Your task to perform on an android device: change the clock style Image 0: 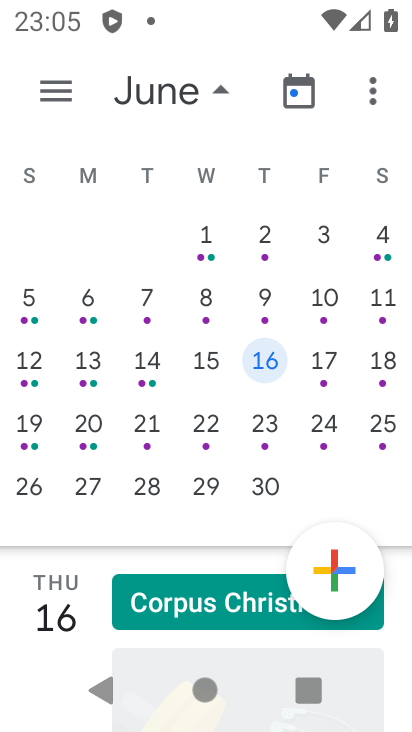
Step 0: drag from (112, 494) to (179, 233)
Your task to perform on an android device: change the clock style Image 1: 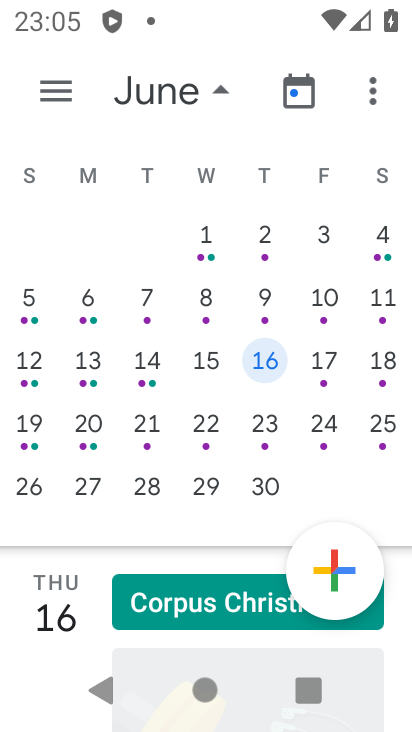
Step 1: press home button
Your task to perform on an android device: change the clock style Image 2: 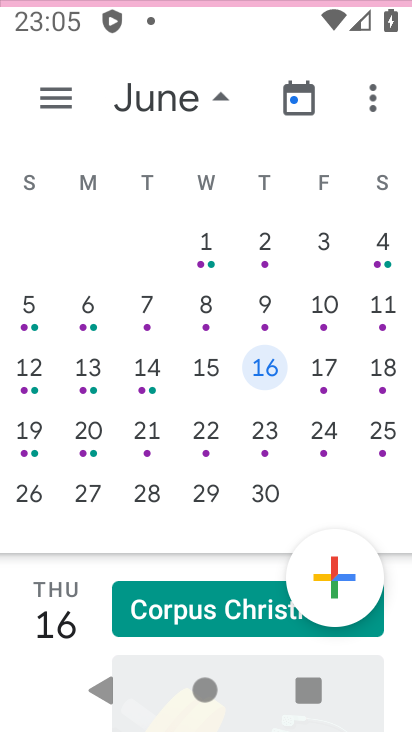
Step 2: drag from (178, 515) to (246, 97)
Your task to perform on an android device: change the clock style Image 3: 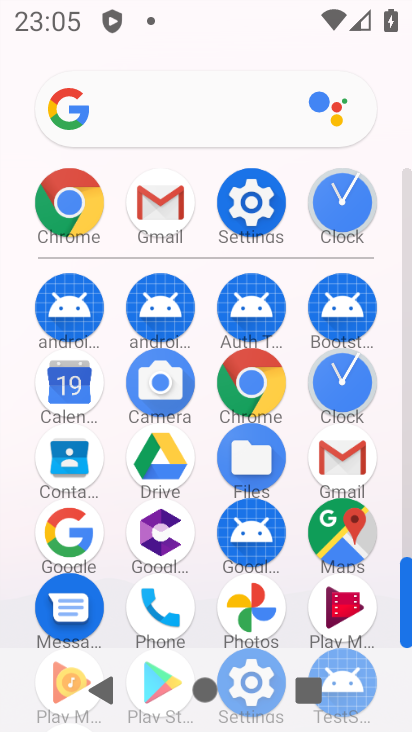
Step 3: click (347, 400)
Your task to perform on an android device: change the clock style Image 4: 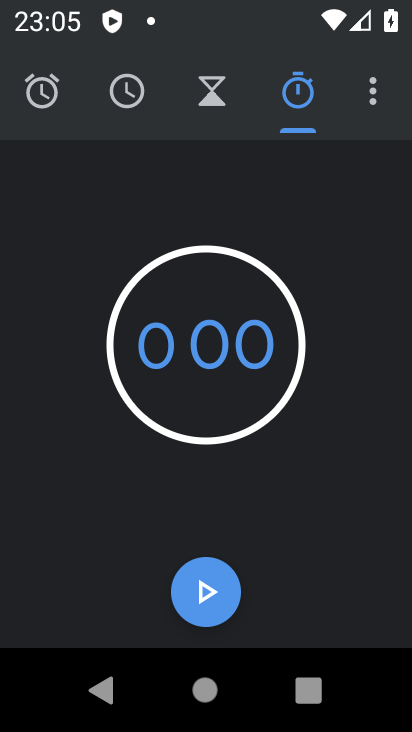
Step 4: click (388, 94)
Your task to perform on an android device: change the clock style Image 5: 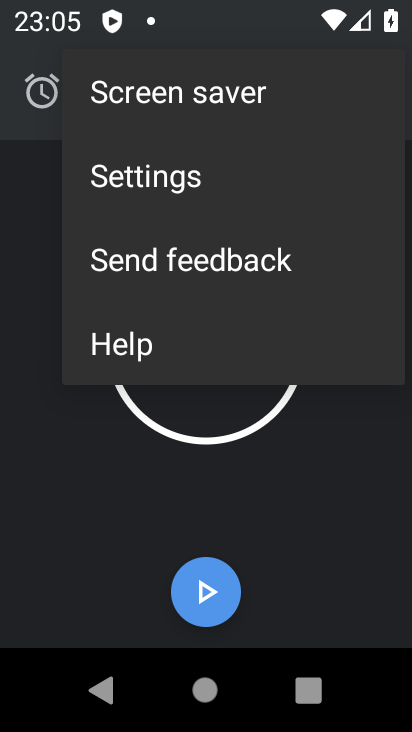
Step 5: click (147, 183)
Your task to perform on an android device: change the clock style Image 6: 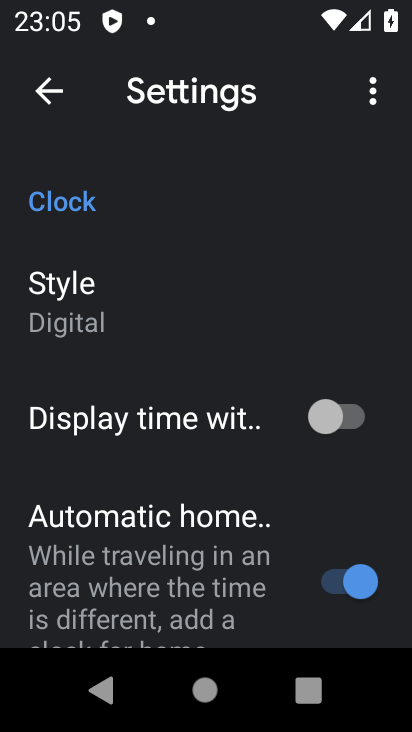
Step 6: click (132, 320)
Your task to perform on an android device: change the clock style Image 7: 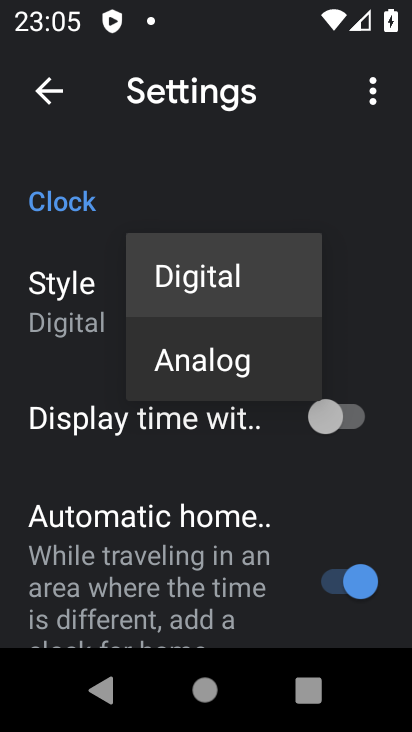
Step 7: click (220, 357)
Your task to perform on an android device: change the clock style Image 8: 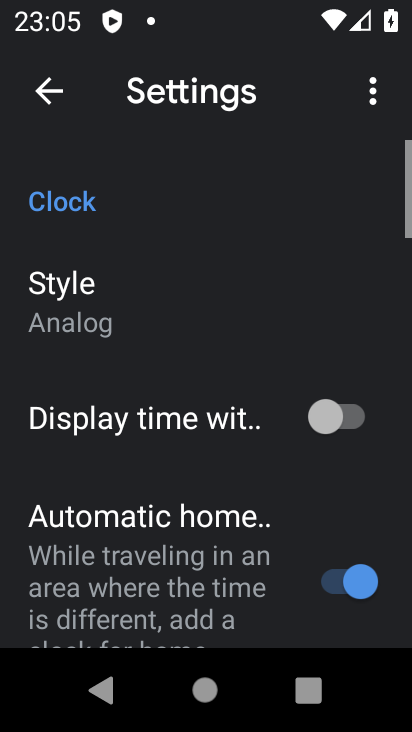
Step 8: task complete